Your task to perform on an android device: find photos in the google photos app Image 0: 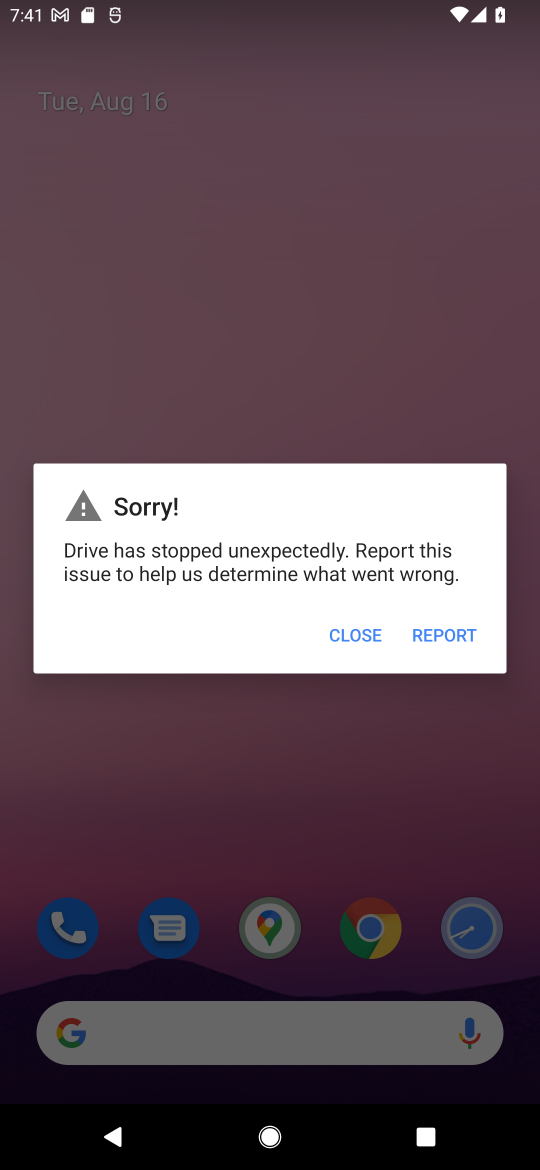
Step 0: press home button
Your task to perform on an android device: find photos in the google photos app Image 1: 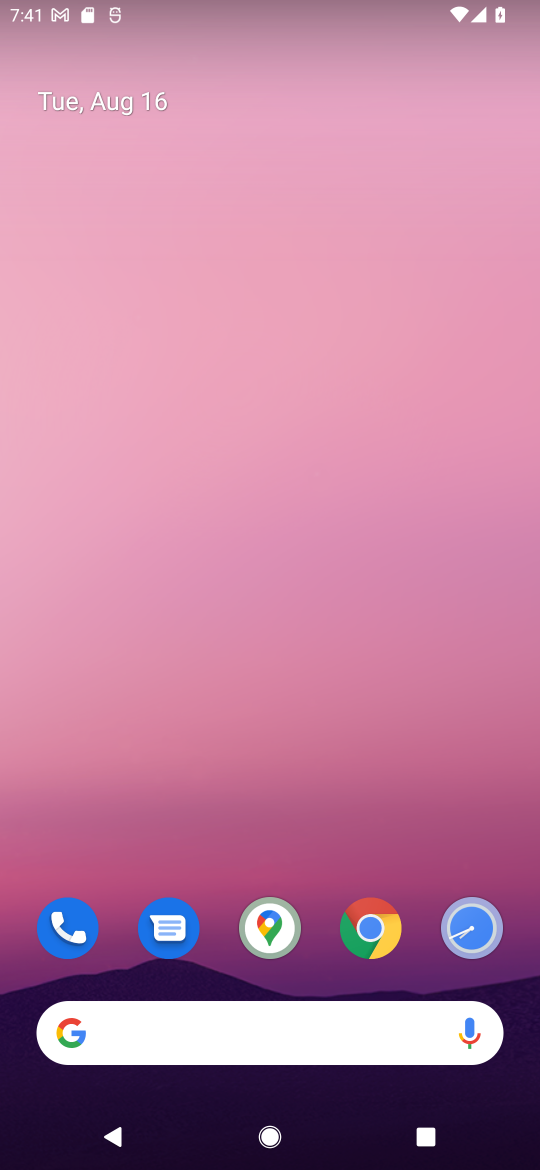
Step 1: drag from (356, 1031) to (149, 0)
Your task to perform on an android device: find photos in the google photos app Image 2: 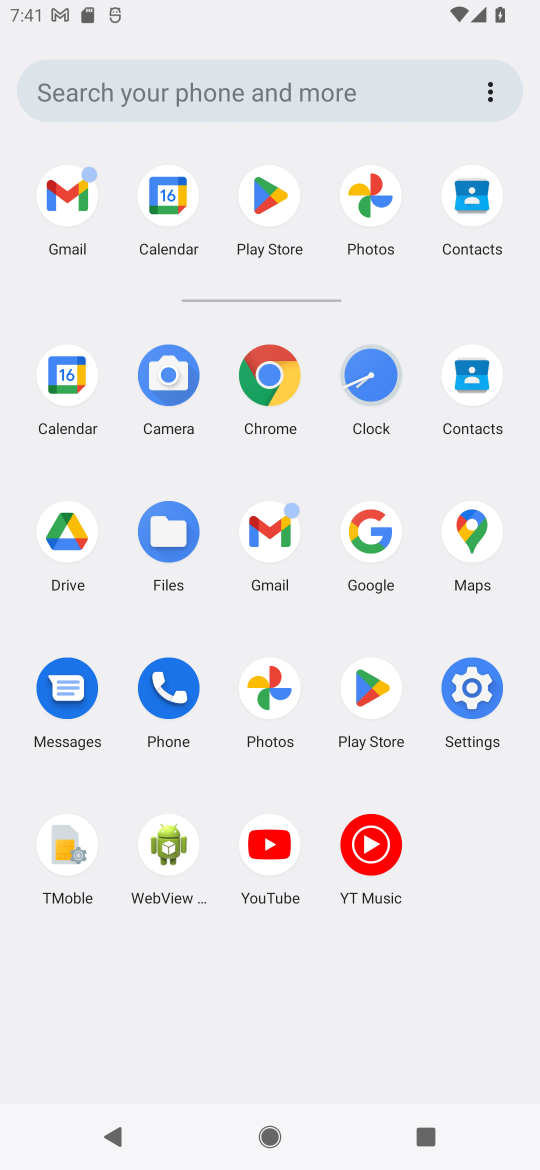
Step 2: click (253, 676)
Your task to perform on an android device: find photos in the google photos app Image 3: 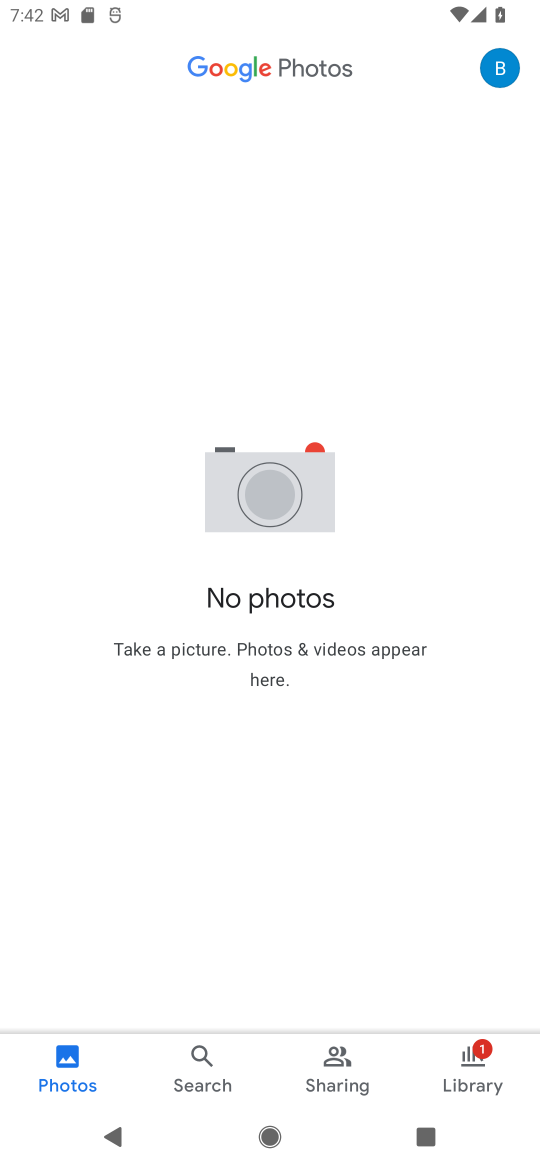
Step 3: task complete